Your task to perform on an android device: set the timer Image 0: 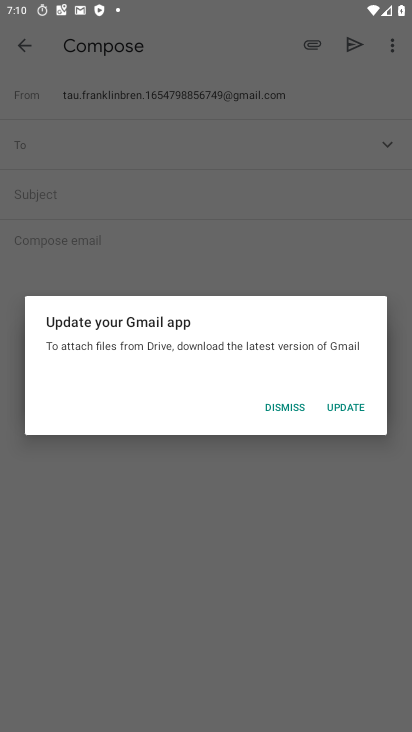
Step 0: press home button
Your task to perform on an android device: set the timer Image 1: 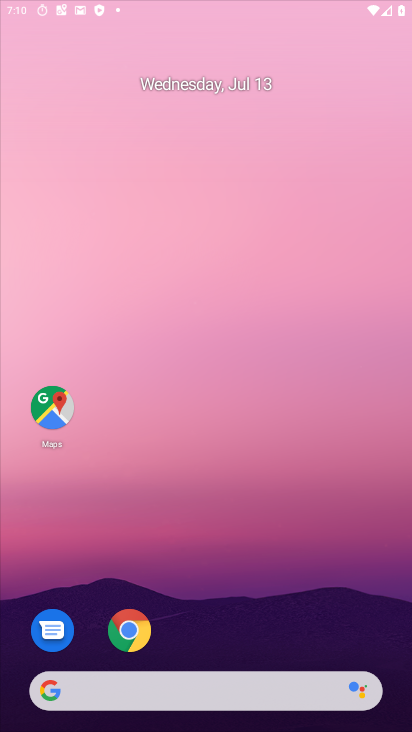
Step 1: drag from (357, 628) to (329, 0)
Your task to perform on an android device: set the timer Image 2: 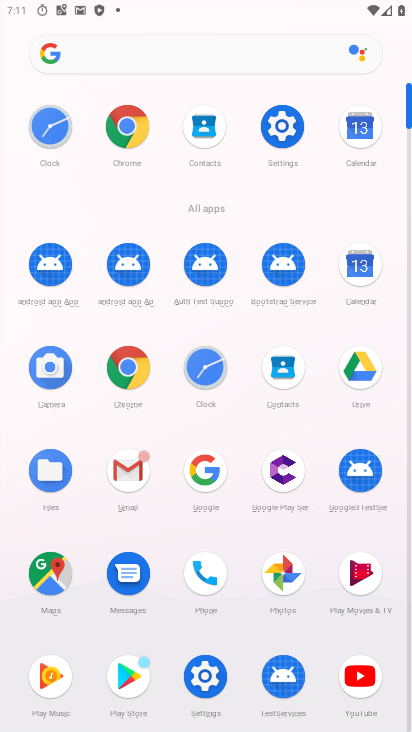
Step 2: click (217, 365)
Your task to perform on an android device: set the timer Image 3: 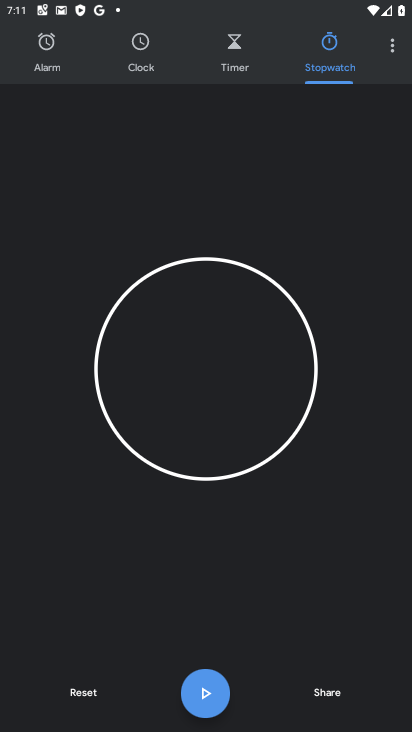
Step 3: click (228, 53)
Your task to perform on an android device: set the timer Image 4: 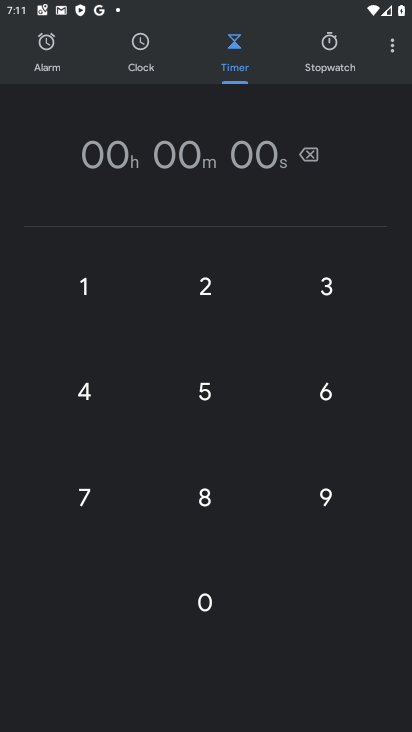
Step 4: click (191, 294)
Your task to perform on an android device: set the timer Image 5: 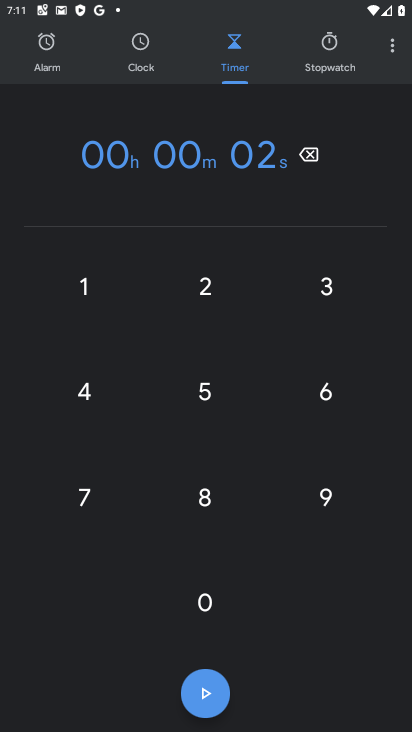
Step 5: click (195, 353)
Your task to perform on an android device: set the timer Image 6: 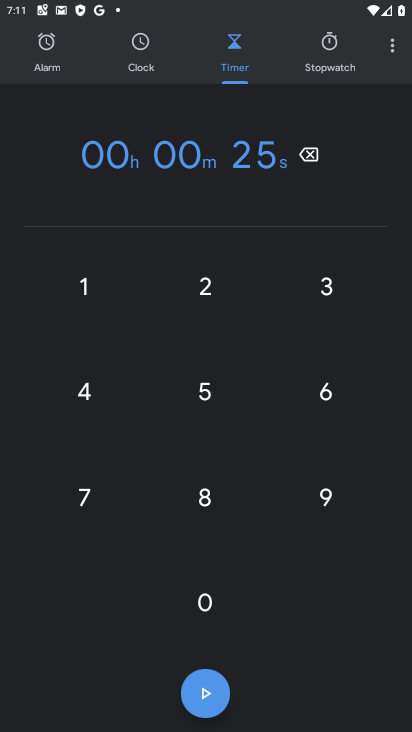
Step 6: click (326, 279)
Your task to perform on an android device: set the timer Image 7: 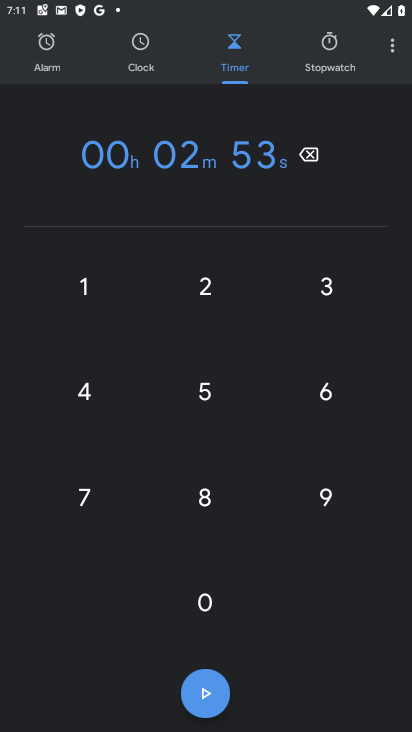
Step 7: click (196, 392)
Your task to perform on an android device: set the timer Image 8: 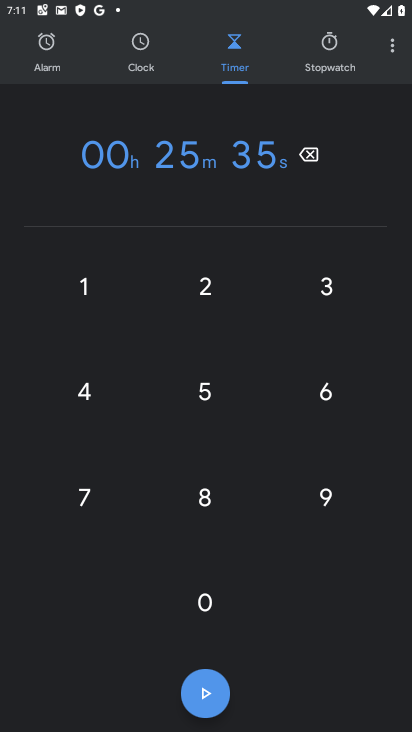
Step 8: click (220, 483)
Your task to perform on an android device: set the timer Image 9: 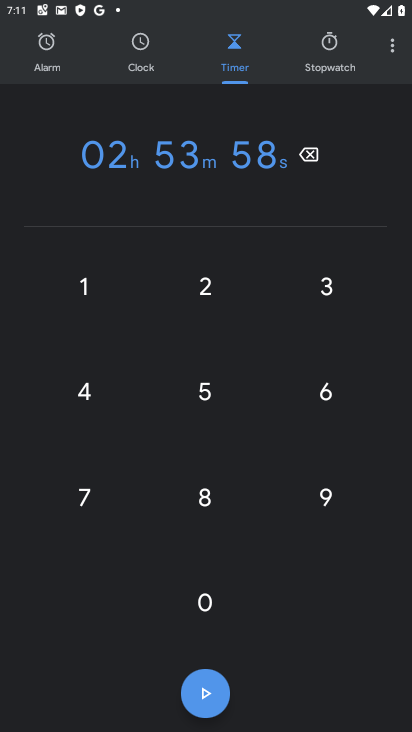
Step 9: task complete